Your task to perform on an android device: open app "Skype" (install if not already installed), go to login, and select forgot password Image 0: 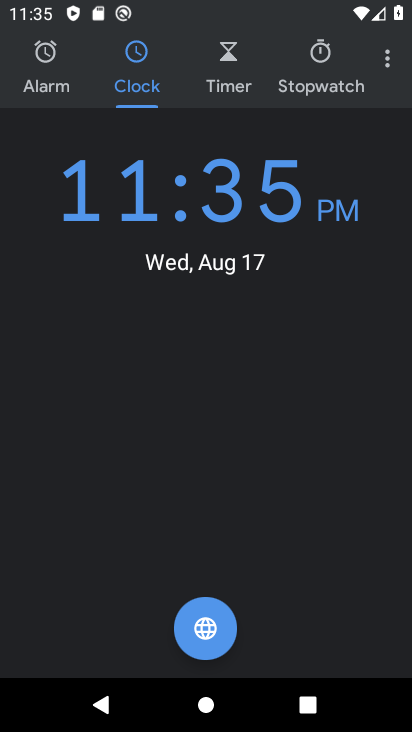
Step 0: press home button
Your task to perform on an android device: open app "Skype" (install if not already installed), go to login, and select forgot password Image 1: 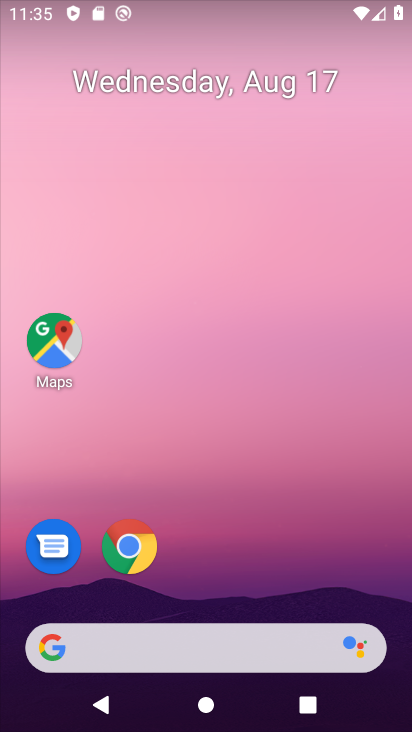
Step 1: drag from (265, 657) to (235, 105)
Your task to perform on an android device: open app "Skype" (install if not already installed), go to login, and select forgot password Image 2: 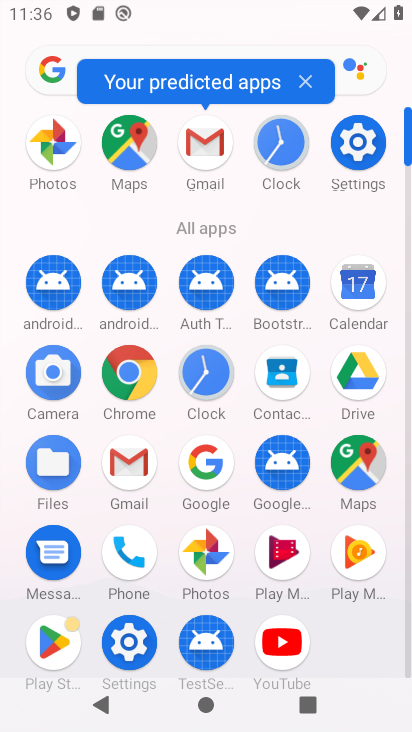
Step 2: click (47, 634)
Your task to perform on an android device: open app "Skype" (install if not already installed), go to login, and select forgot password Image 3: 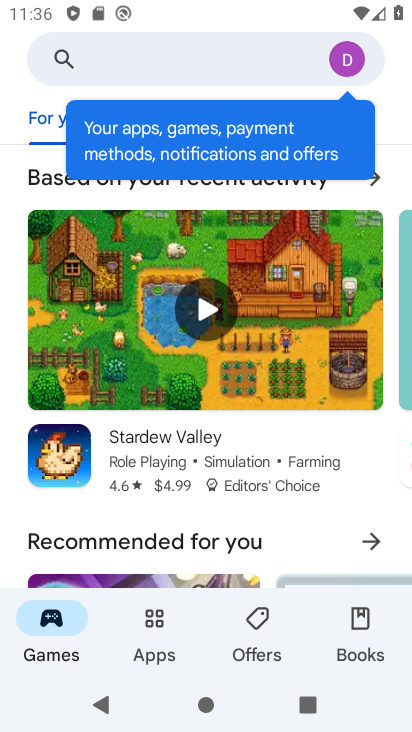
Step 3: click (196, 59)
Your task to perform on an android device: open app "Skype" (install if not already installed), go to login, and select forgot password Image 4: 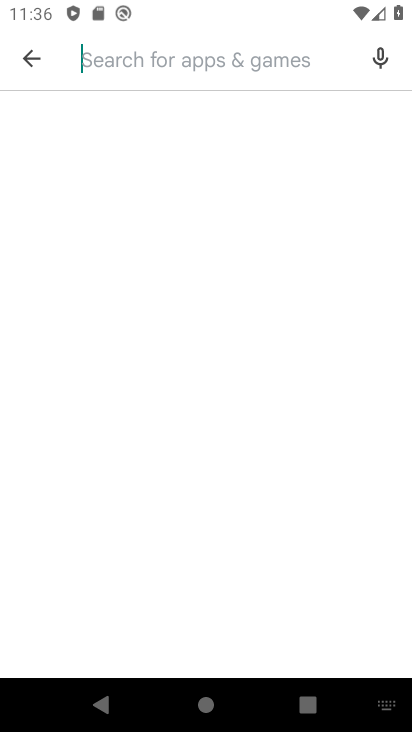
Step 4: type "skype"
Your task to perform on an android device: open app "Skype" (install if not already installed), go to login, and select forgot password Image 5: 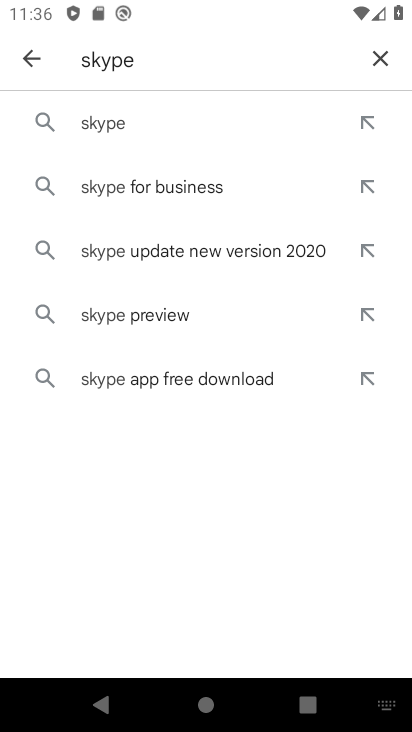
Step 5: click (167, 125)
Your task to perform on an android device: open app "Skype" (install if not already installed), go to login, and select forgot password Image 6: 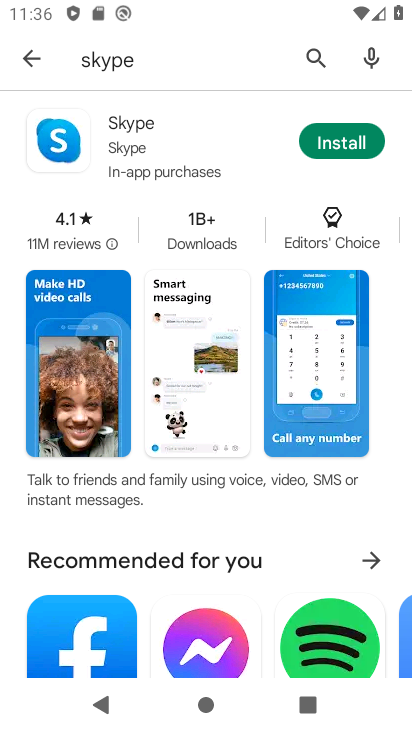
Step 6: click (336, 140)
Your task to perform on an android device: open app "Skype" (install if not already installed), go to login, and select forgot password Image 7: 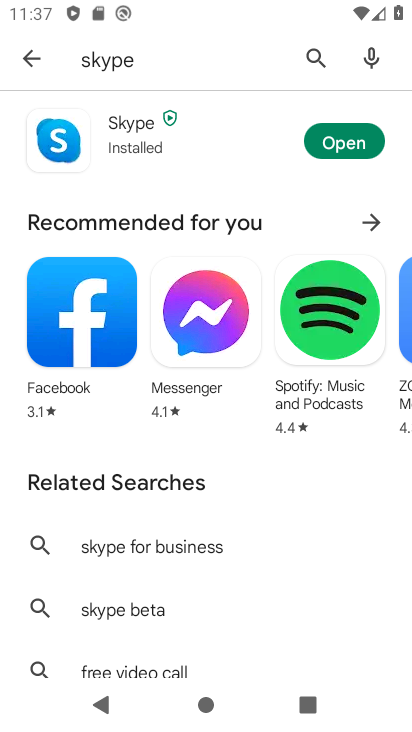
Step 7: click (340, 137)
Your task to perform on an android device: open app "Skype" (install if not already installed), go to login, and select forgot password Image 8: 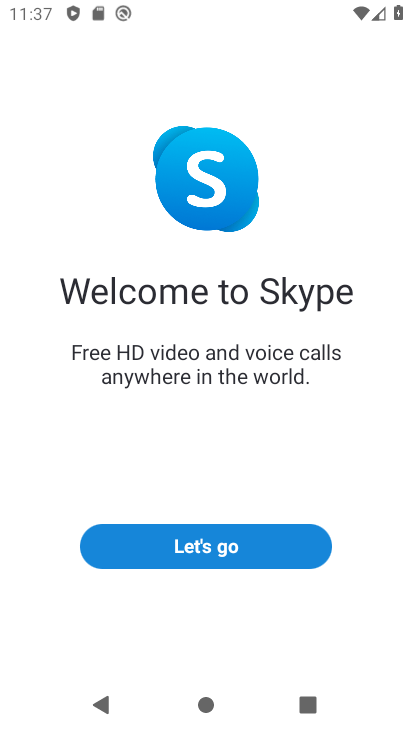
Step 8: click (244, 548)
Your task to perform on an android device: open app "Skype" (install if not already installed), go to login, and select forgot password Image 9: 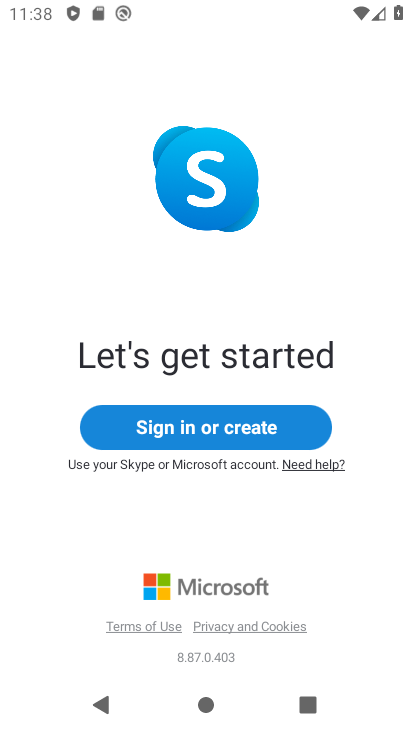
Step 9: click (211, 432)
Your task to perform on an android device: open app "Skype" (install if not already installed), go to login, and select forgot password Image 10: 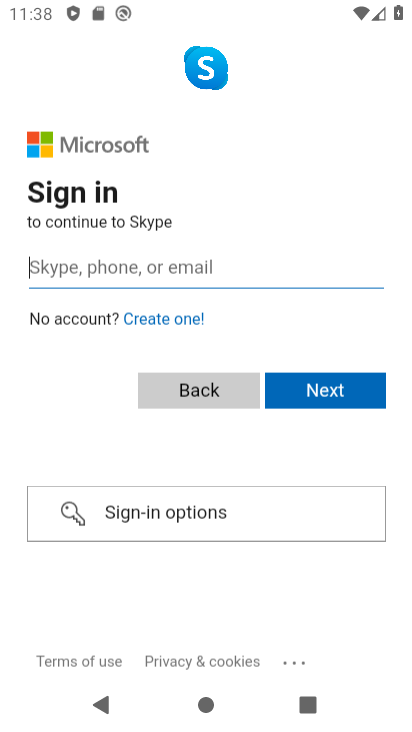
Step 10: click (176, 513)
Your task to perform on an android device: open app "Skype" (install if not already installed), go to login, and select forgot password Image 11: 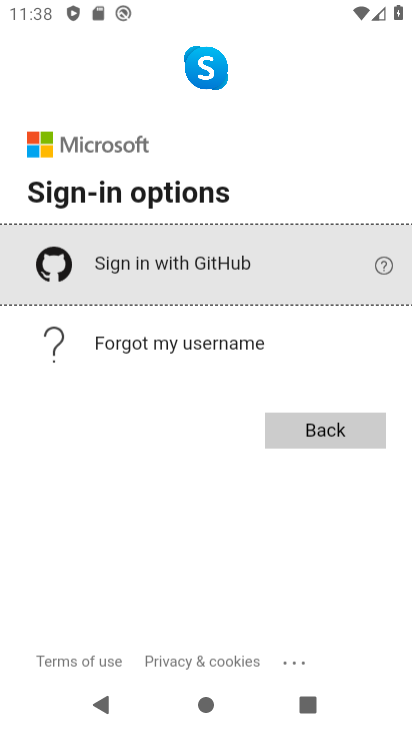
Step 11: task complete